Your task to perform on an android device: Do I have any events this weekend? Image 0: 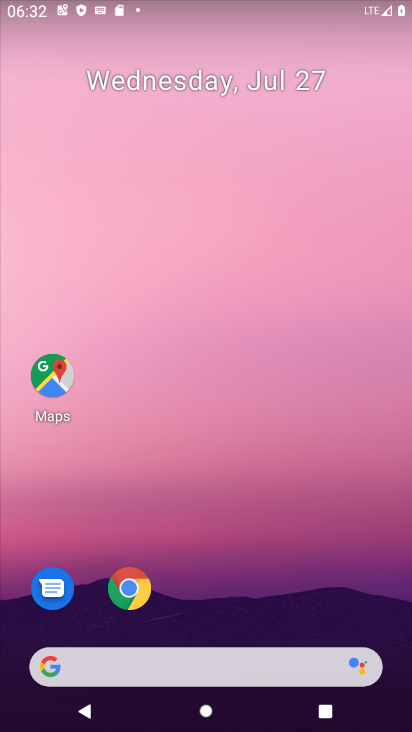
Step 0: drag from (346, 647) to (366, 80)
Your task to perform on an android device: Do I have any events this weekend? Image 1: 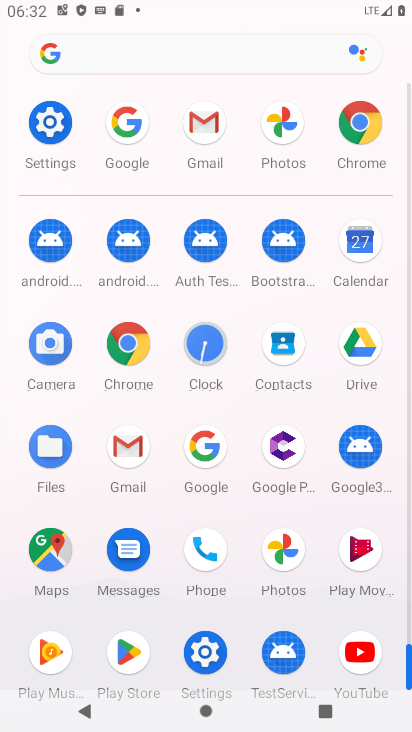
Step 1: click (362, 238)
Your task to perform on an android device: Do I have any events this weekend? Image 2: 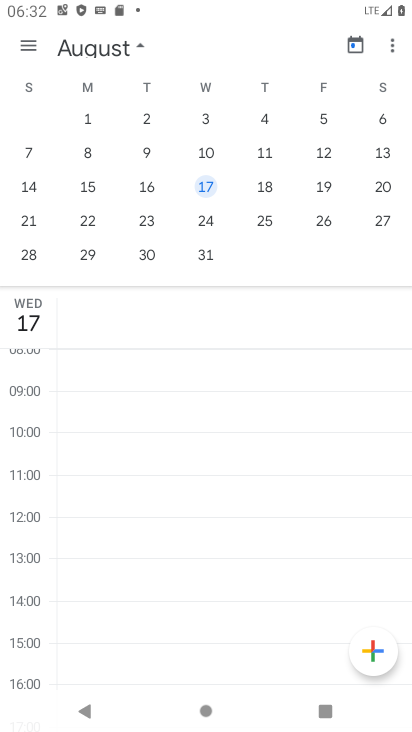
Step 2: drag from (75, 168) to (379, 192)
Your task to perform on an android device: Do I have any events this weekend? Image 3: 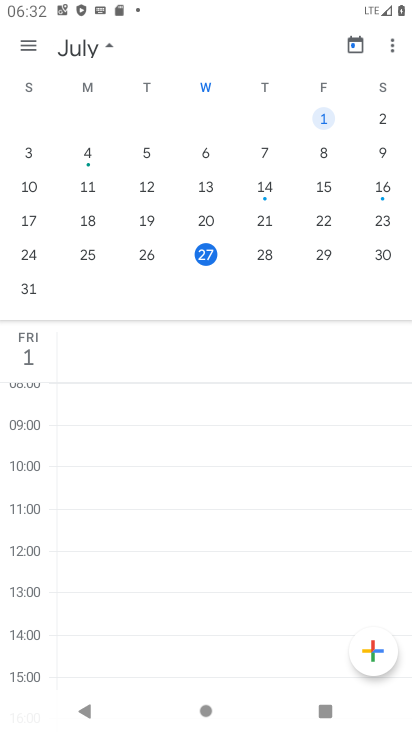
Step 3: click (392, 250)
Your task to perform on an android device: Do I have any events this weekend? Image 4: 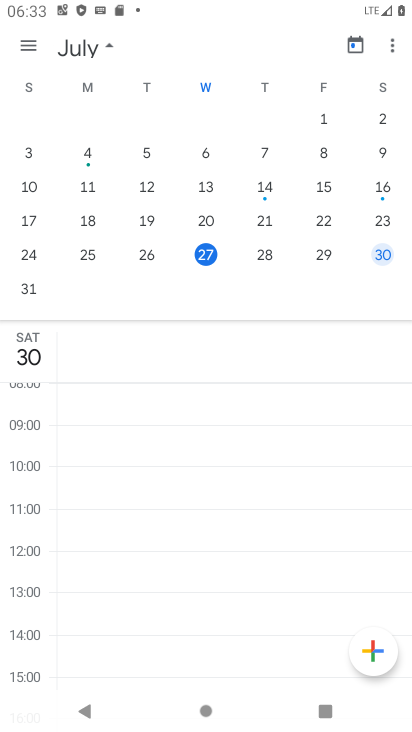
Step 4: task complete